Your task to perform on an android device: Toggle the flashlight Image 0: 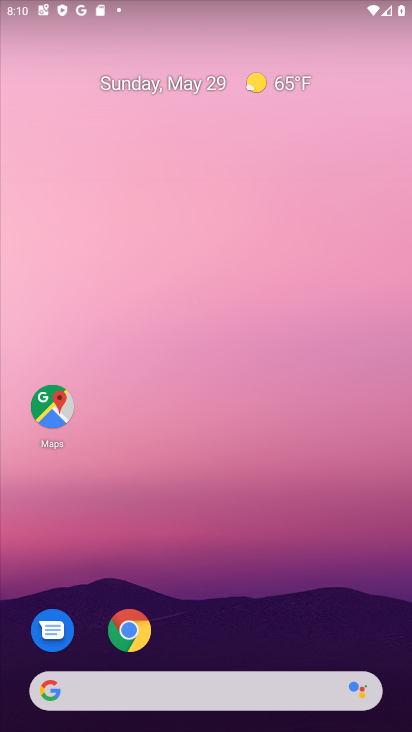
Step 0: drag from (217, 729) to (143, 0)
Your task to perform on an android device: Toggle the flashlight Image 1: 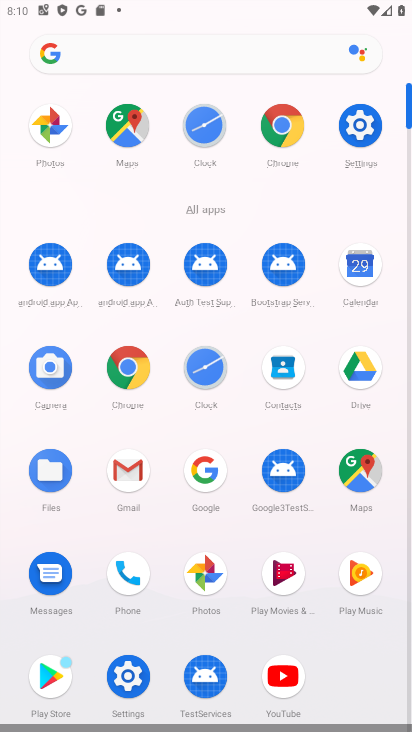
Step 1: click (362, 126)
Your task to perform on an android device: Toggle the flashlight Image 2: 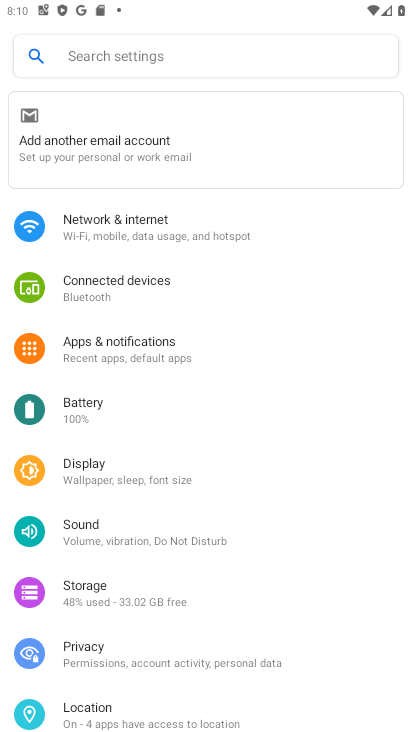
Step 2: task complete